Your task to perform on an android device: show emergency info Image 0: 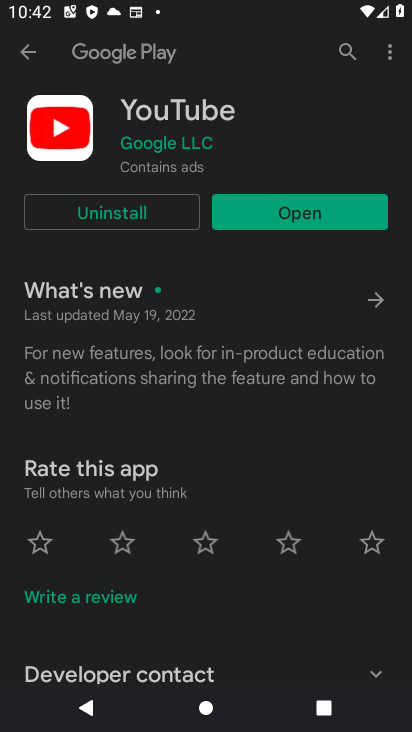
Step 0: press home button
Your task to perform on an android device: show emergency info Image 1: 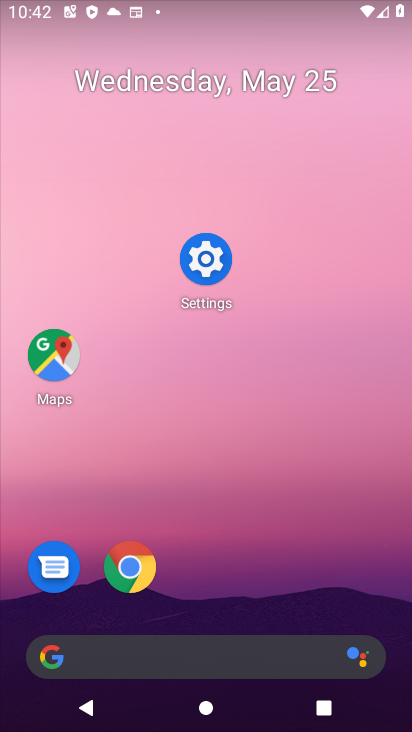
Step 1: click (217, 267)
Your task to perform on an android device: show emergency info Image 2: 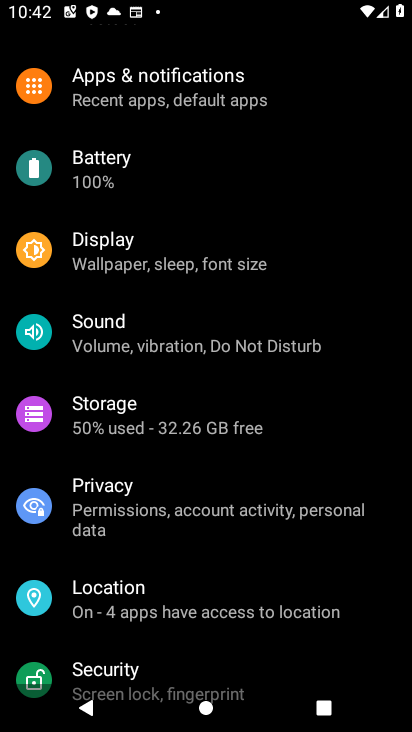
Step 2: drag from (120, 527) to (167, 144)
Your task to perform on an android device: show emergency info Image 3: 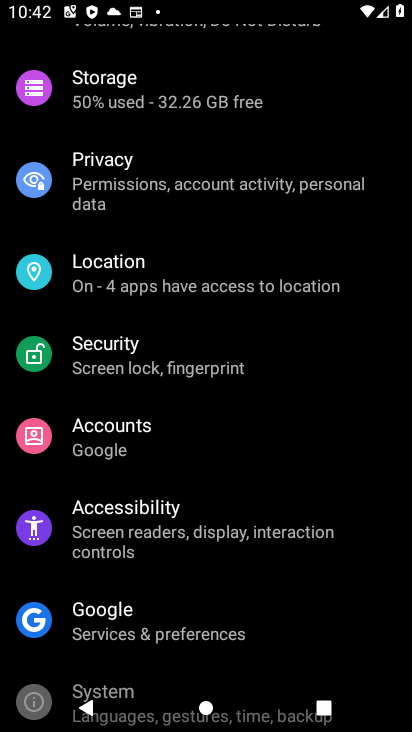
Step 3: drag from (72, 659) to (239, 51)
Your task to perform on an android device: show emergency info Image 4: 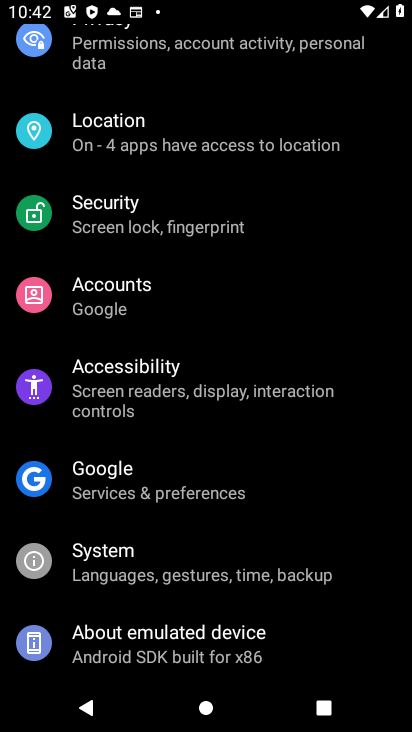
Step 4: click (238, 623)
Your task to perform on an android device: show emergency info Image 5: 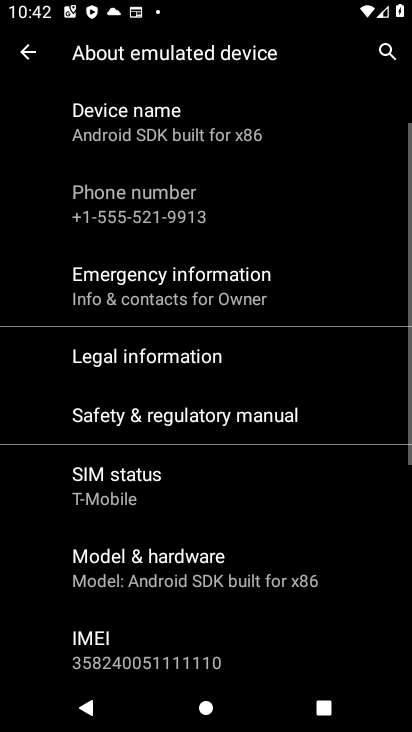
Step 5: click (196, 286)
Your task to perform on an android device: show emergency info Image 6: 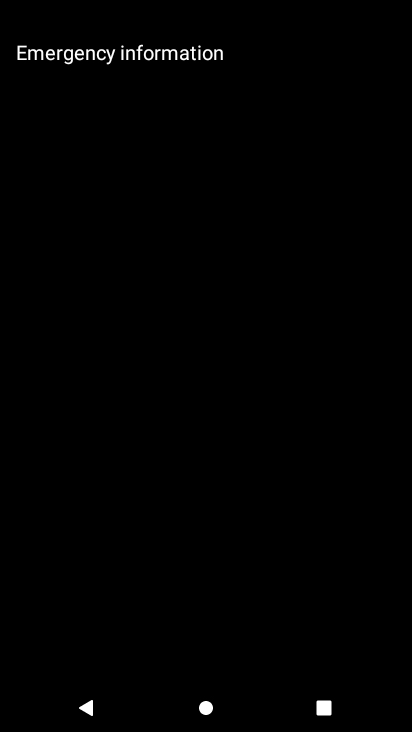
Step 6: task complete